Your task to perform on an android device: Open CNN.com Image 0: 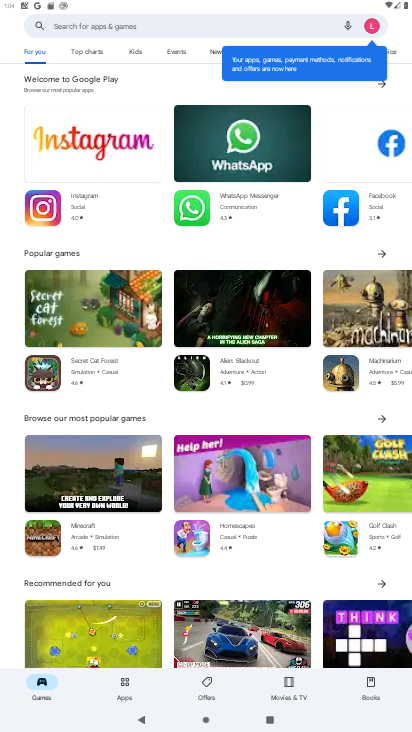
Step 0: press home button
Your task to perform on an android device: Open CNN.com Image 1: 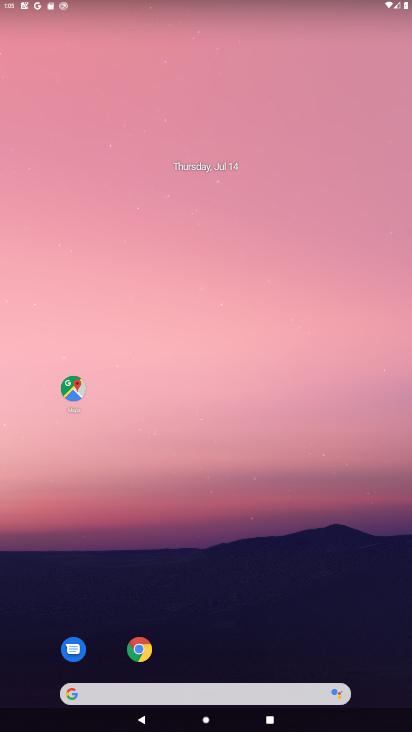
Step 1: drag from (241, 632) to (271, 39)
Your task to perform on an android device: Open CNN.com Image 2: 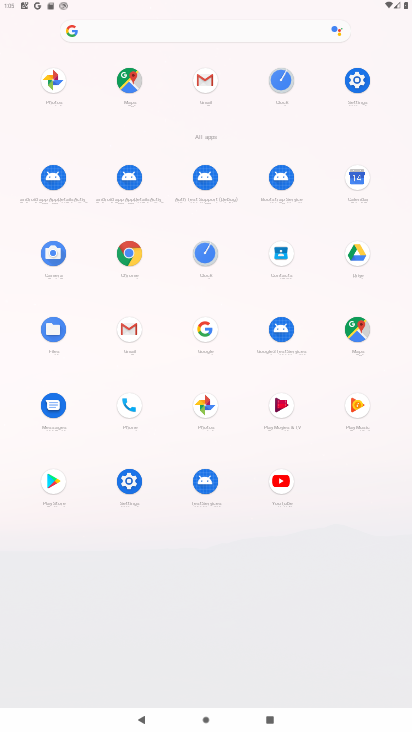
Step 2: click (136, 253)
Your task to perform on an android device: Open CNN.com Image 3: 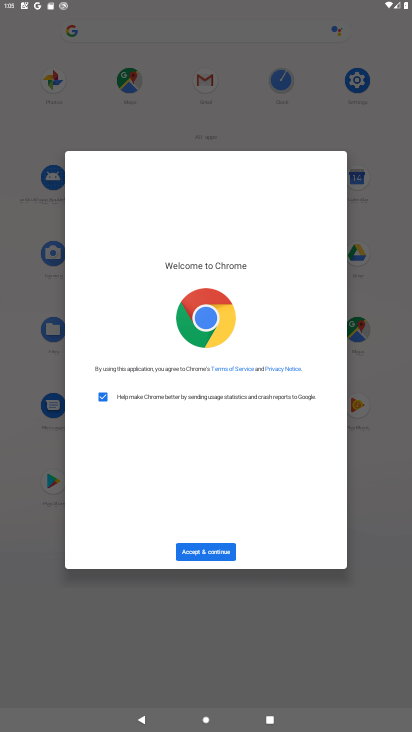
Step 3: click (200, 547)
Your task to perform on an android device: Open CNN.com Image 4: 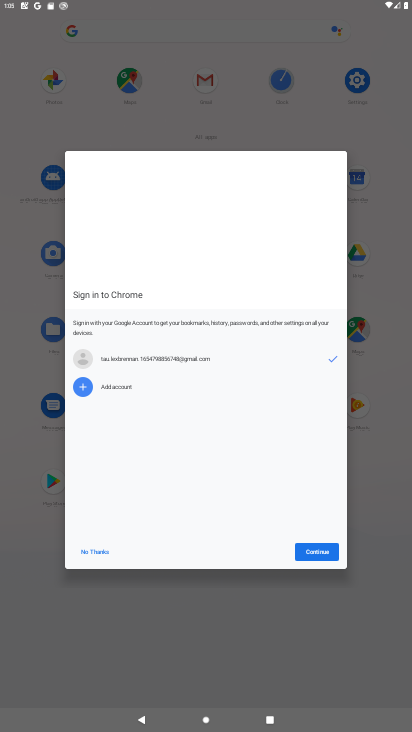
Step 4: click (102, 552)
Your task to perform on an android device: Open CNN.com Image 5: 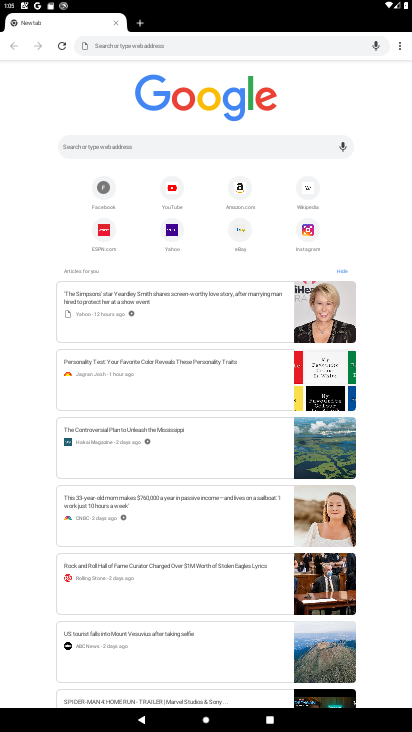
Step 5: type "cnn.com"
Your task to perform on an android device: Open CNN.com Image 6: 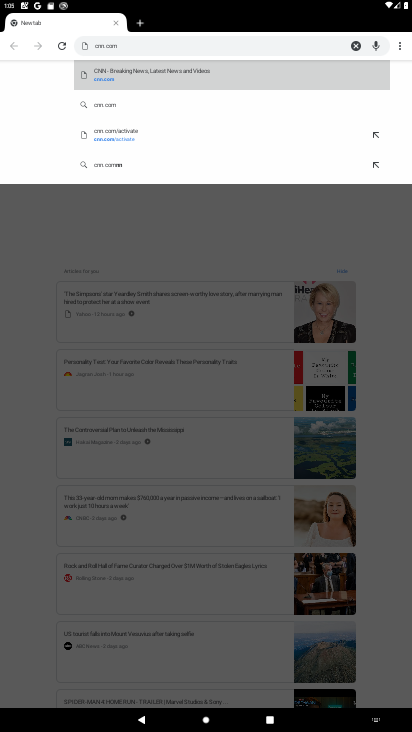
Step 6: click (144, 70)
Your task to perform on an android device: Open CNN.com Image 7: 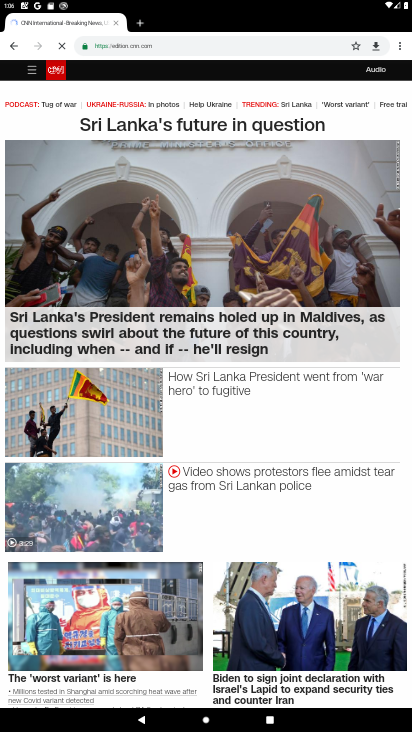
Step 7: task complete